Your task to perform on an android device: Open Google Image 0: 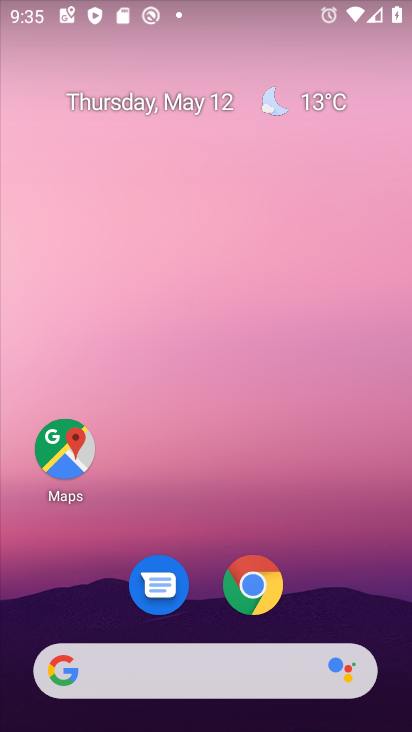
Step 0: click (269, 586)
Your task to perform on an android device: Open Google Image 1: 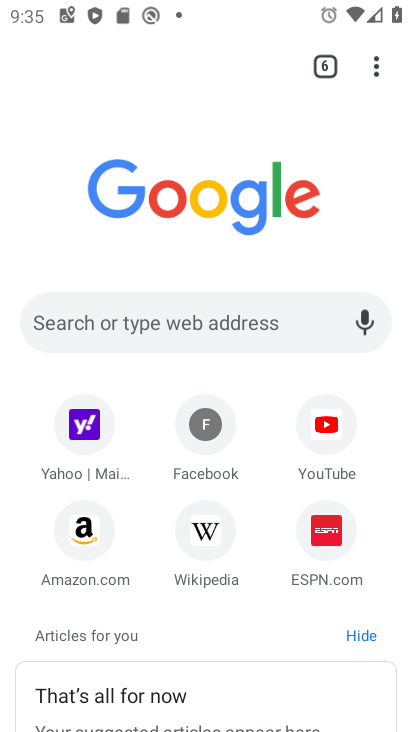
Step 1: task complete